Your task to perform on an android device: check google app version Image 0: 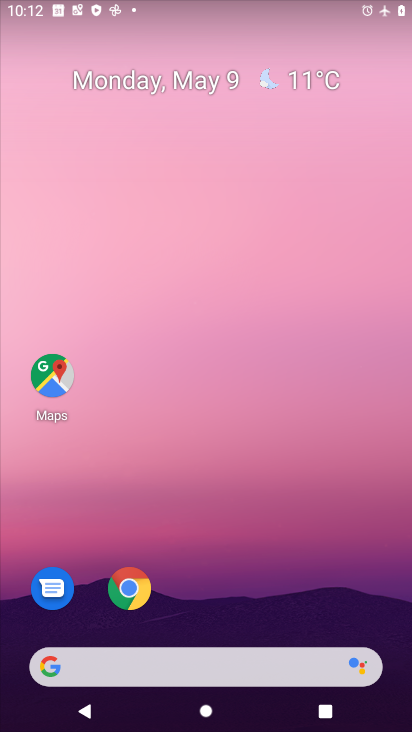
Step 0: drag from (303, 620) to (285, 65)
Your task to perform on an android device: check google app version Image 1: 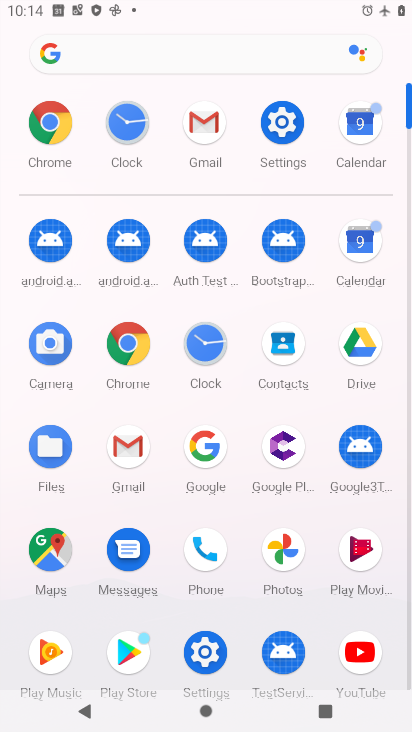
Step 1: click (190, 452)
Your task to perform on an android device: check google app version Image 2: 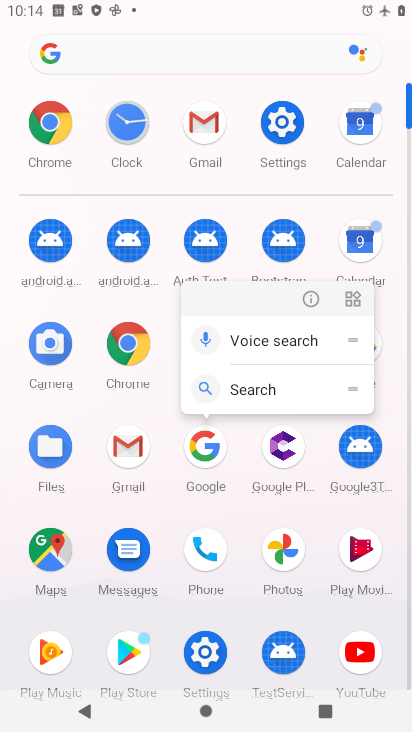
Step 2: click (306, 298)
Your task to perform on an android device: check google app version Image 3: 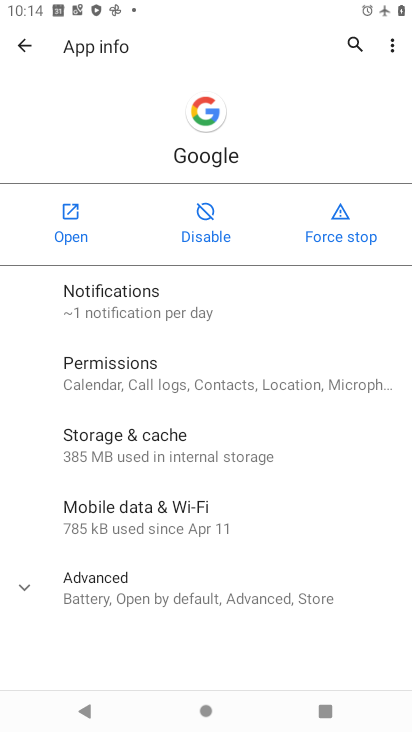
Step 3: click (58, 599)
Your task to perform on an android device: check google app version Image 4: 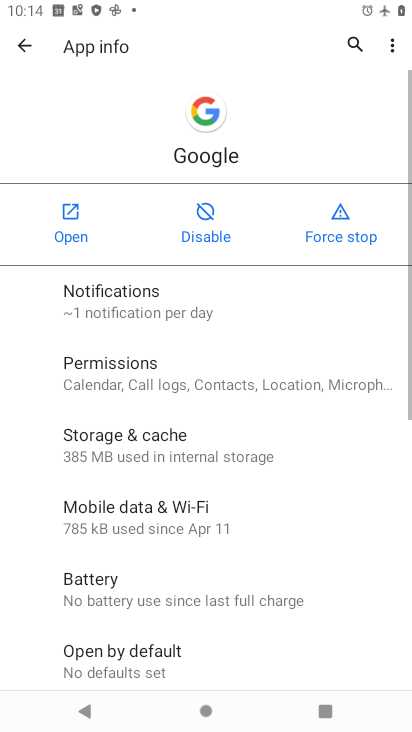
Step 4: task complete